Your task to perform on an android device: Show me recent news Image 0: 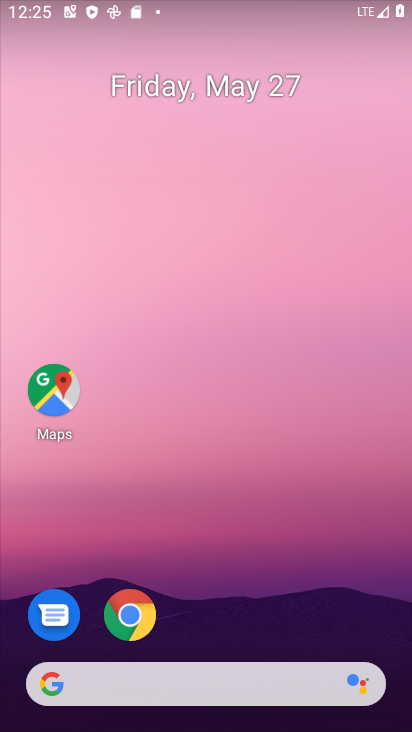
Step 0: drag from (239, 660) to (305, 64)
Your task to perform on an android device: Show me recent news Image 1: 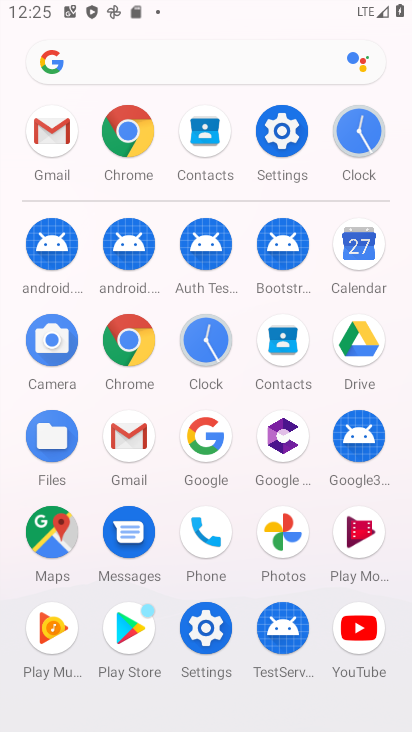
Step 1: click (141, 343)
Your task to perform on an android device: Show me recent news Image 2: 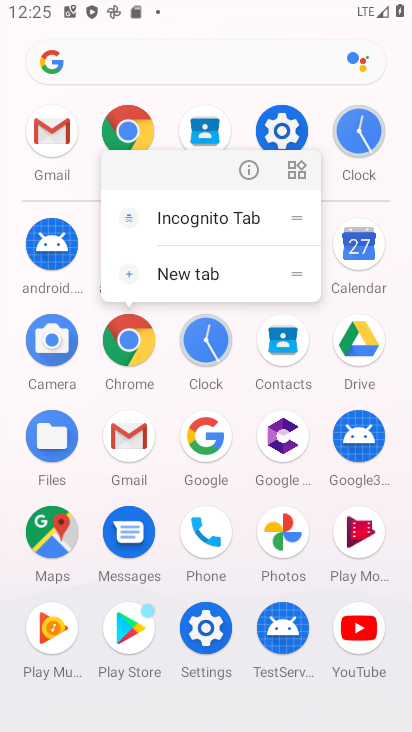
Step 2: click (141, 343)
Your task to perform on an android device: Show me recent news Image 3: 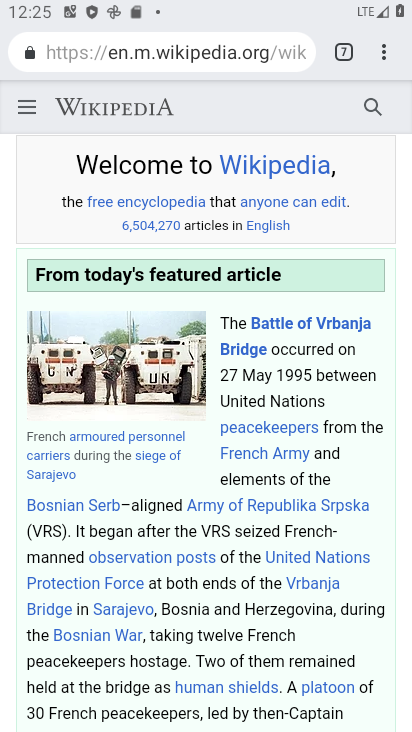
Step 3: click (381, 51)
Your task to perform on an android device: Show me recent news Image 4: 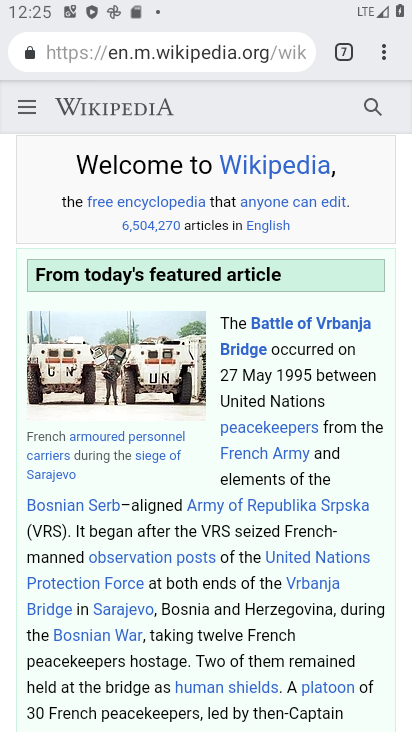
Step 4: drag from (379, 35) to (281, 114)
Your task to perform on an android device: Show me recent news Image 5: 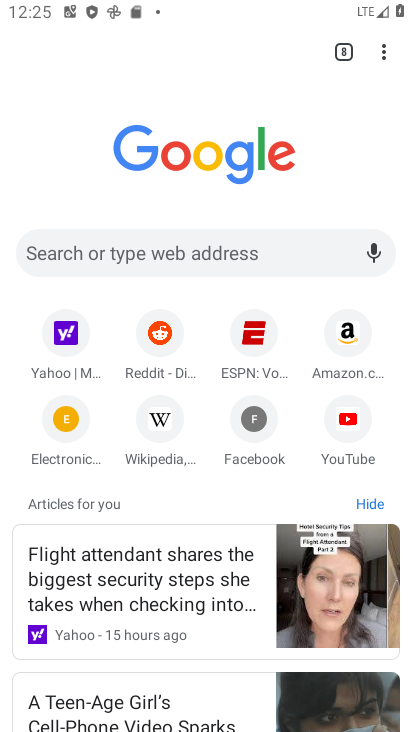
Step 5: click (111, 251)
Your task to perform on an android device: Show me recent news Image 6: 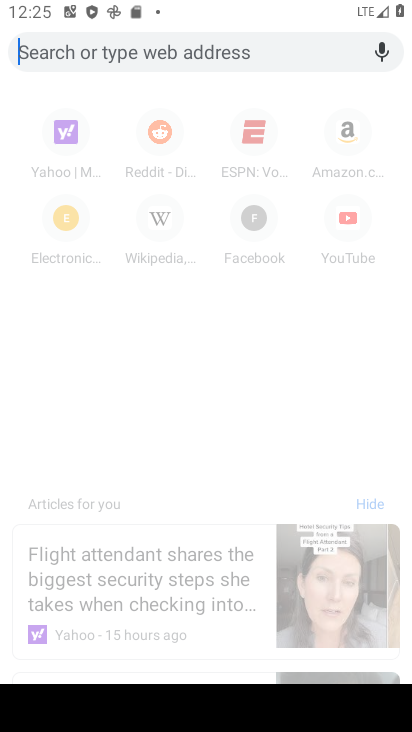
Step 6: type "recent news"
Your task to perform on an android device: Show me recent news Image 7: 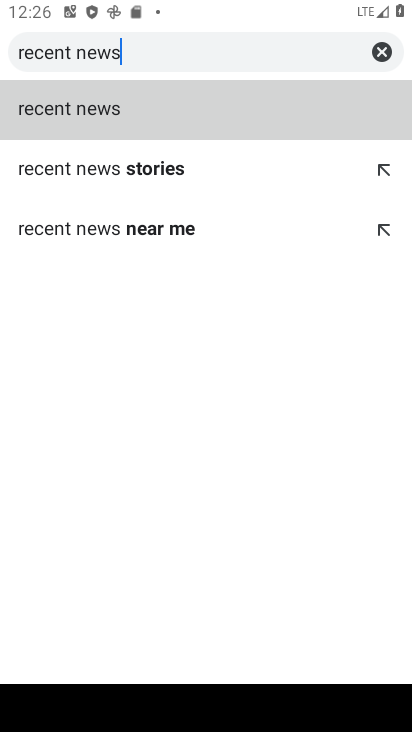
Step 7: click (114, 109)
Your task to perform on an android device: Show me recent news Image 8: 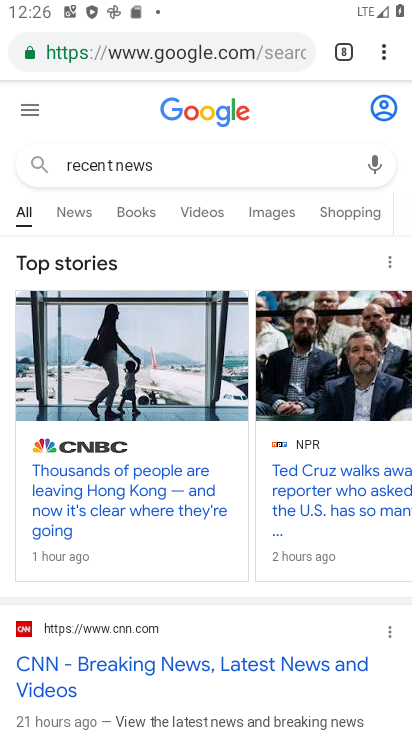
Step 8: task complete